Your task to perform on an android device: Open the Play Movies app and select the watchlist tab. Image 0: 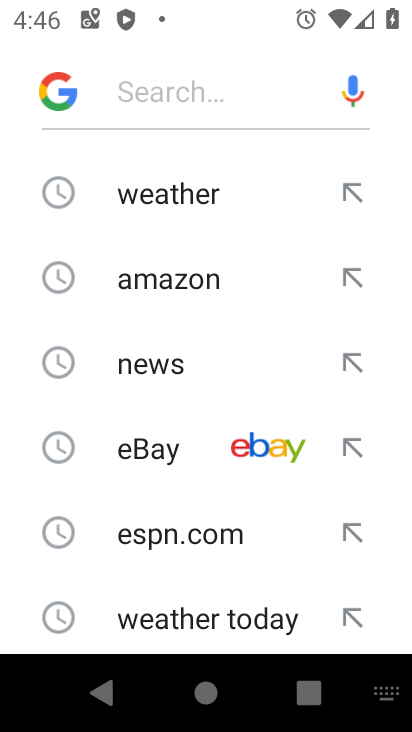
Step 0: press home button
Your task to perform on an android device: Open the Play Movies app and select the watchlist tab. Image 1: 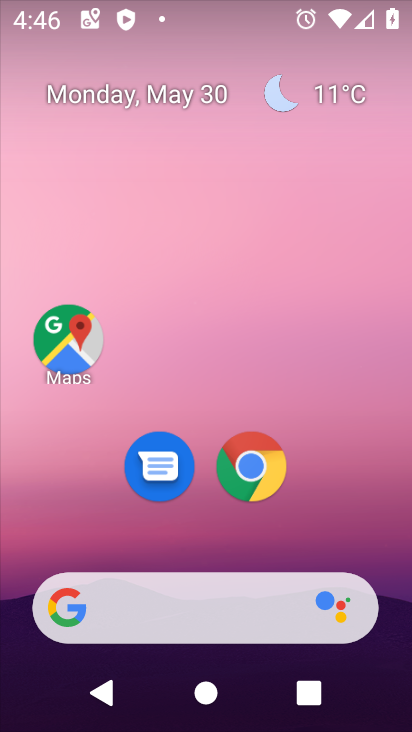
Step 1: drag from (360, 480) to (304, 78)
Your task to perform on an android device: Open the Play Movies app and select the watchlist tab. Image 2: 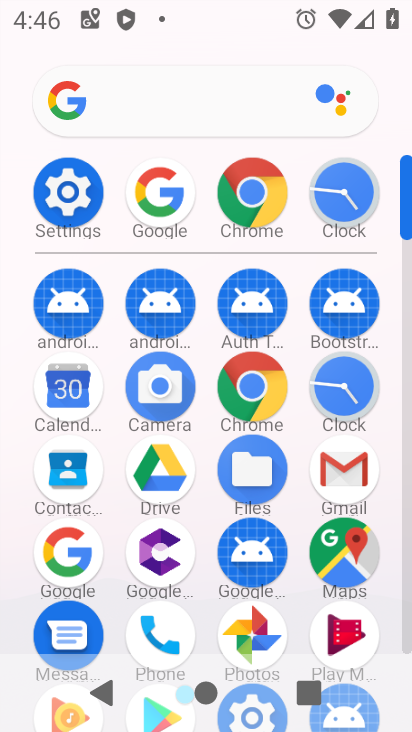
Step 2: click (346, 639)
Your task to perform on an android device: Open the Play Movies app and select the watchlist tab. Image 3: 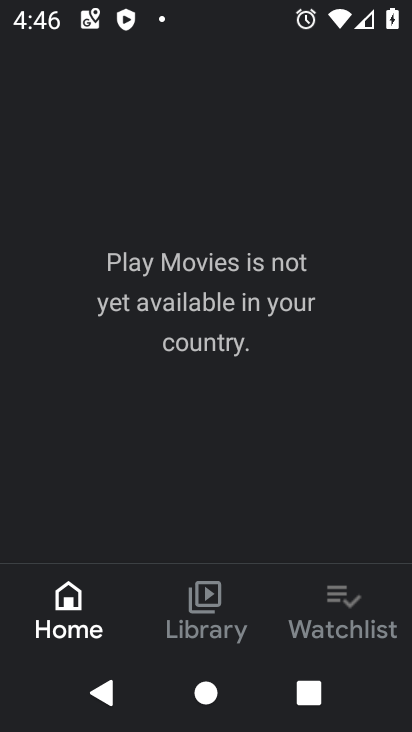
Step 3: click (363, 584)
Your task to perform on an android device: Open the Play Movies app and select the watchlist tab. Image 4: 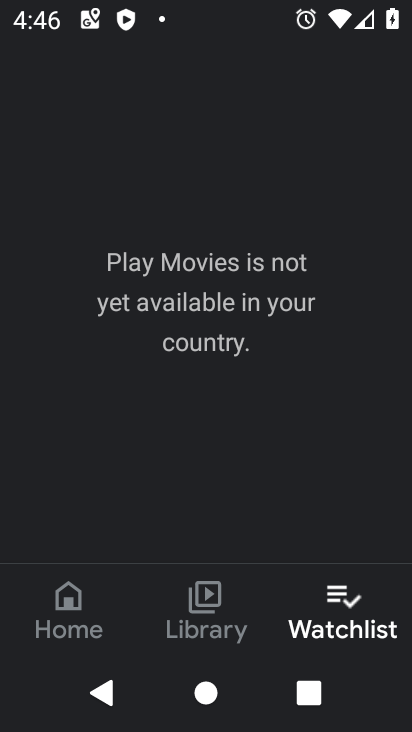
Step 4: task complete